Your task to perform on an android device: What's the weather today? Image 0: 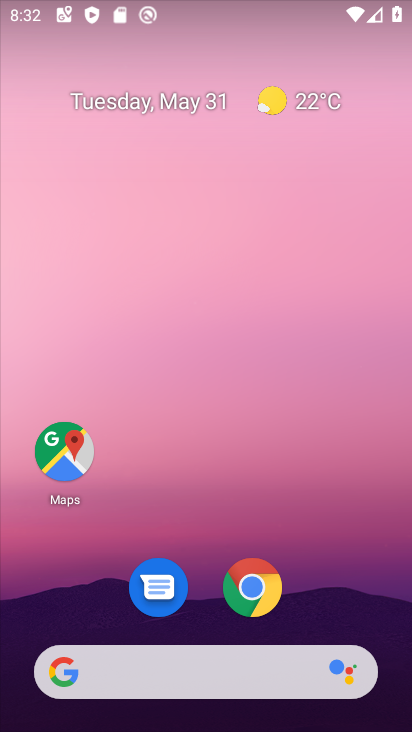
Step 0: click (307, 106)
Your task to perform on an android device: What's the weather today? Image 1: 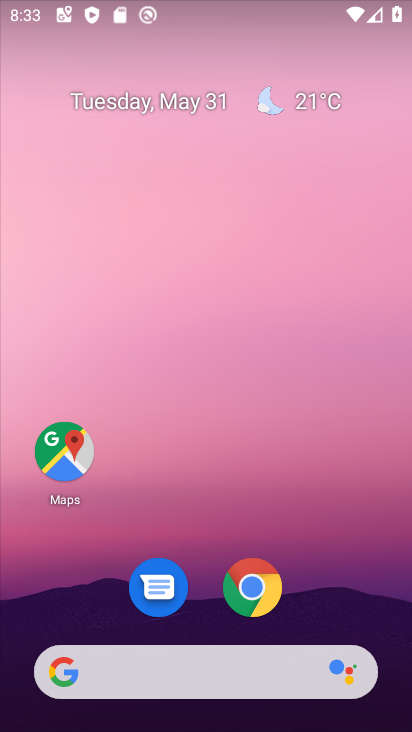
Step 1: click (321, 89)
Your task to perform on an android device: What's the weather today? Image 2: 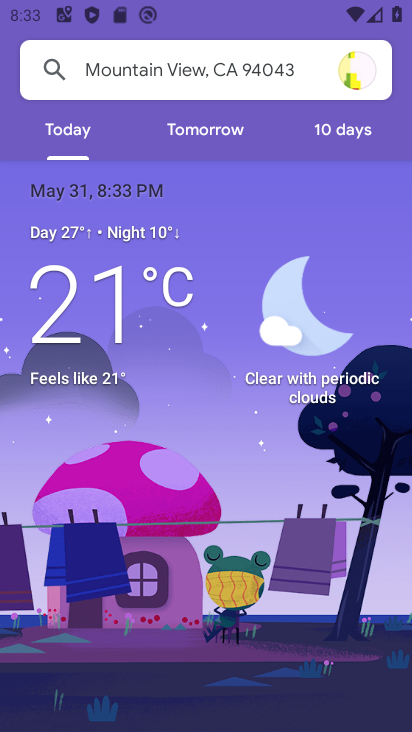
Step 2: task complete